Your task to perform on an android device: Open calendar and show me the fourth week of next month Image 0: 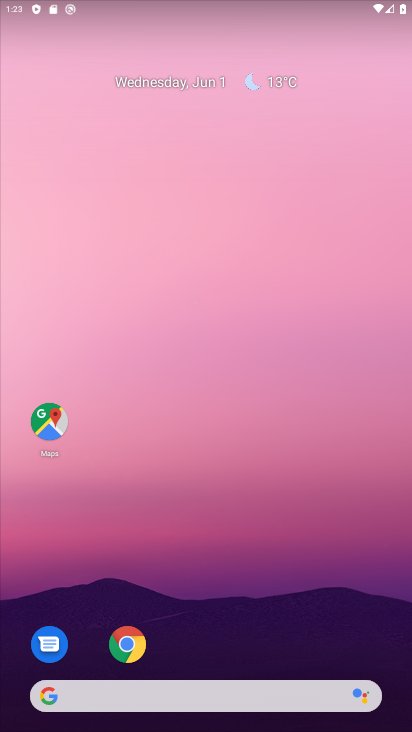
Step 0: drag from (219, 662) to (266, 321)
Your task to perform on an android device: Open calendar and show me the fourth week of next month Image 1: 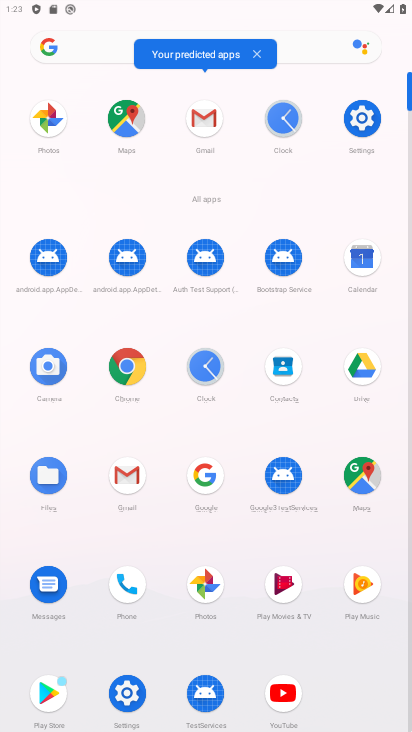
Step 1: click (356, 267)
Your task to perform on an android device: Open calendar and show me the fourth week of next month Image 2: 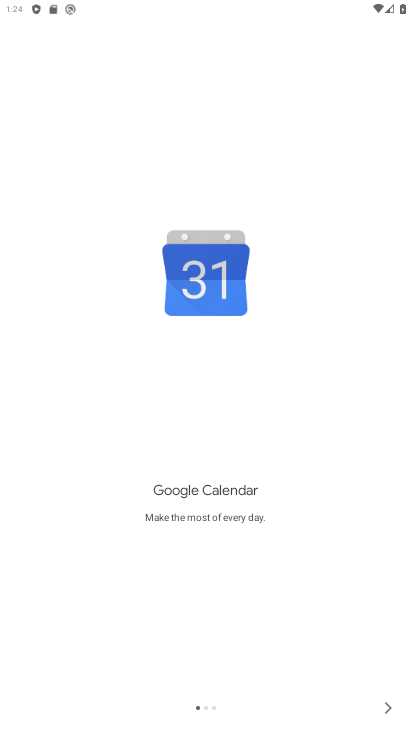
Step 2: click (383, 704)
Your task to perform on an android device: Open calendar and show me the fourth week of next month Image 3: 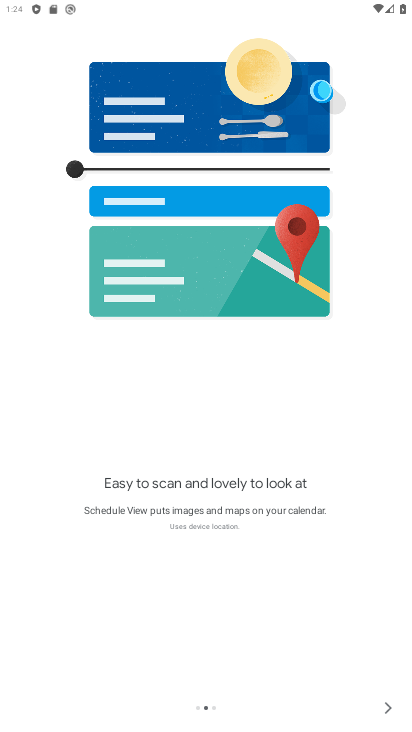
Step 3: click (380, 706)
Your task to perform on an android device: Open calendar and show me the fourth week of next month Image 4: 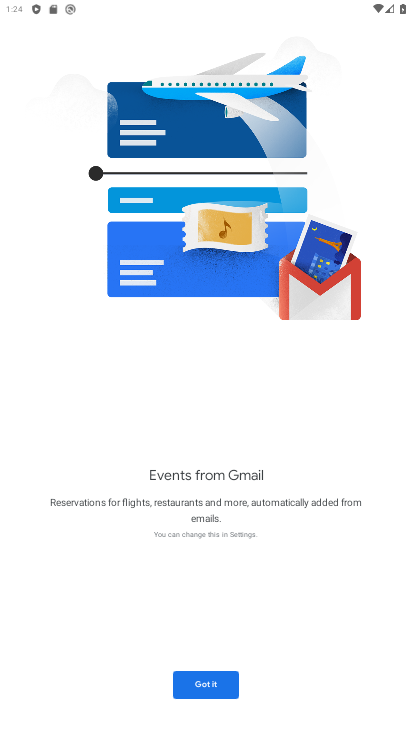
Step 4: click (198, 684)
Your task to perform on an android device: Open calendar and show me the fourth week of next month Image 5: 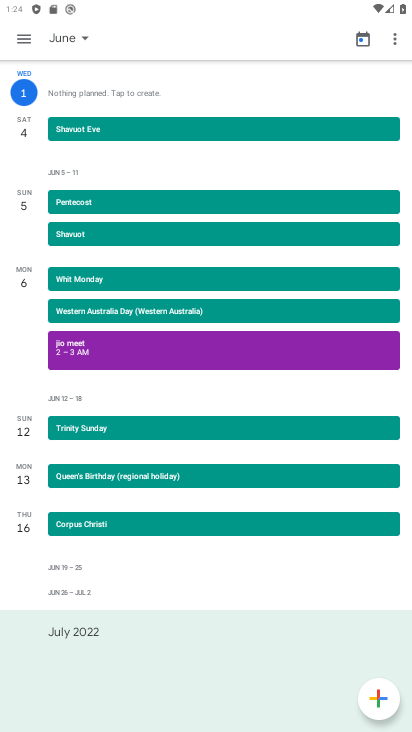
Step 5: click (94, 93)
Your task to perform on an android device: Open calendar and show me the fourth week of next month Image 6: 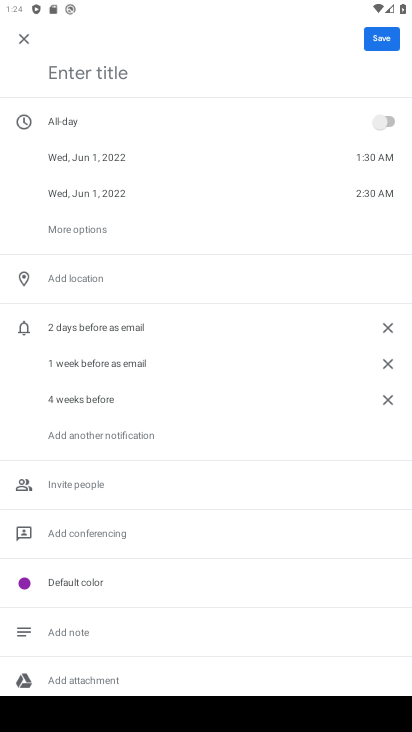
Step 6: click (31, 42)
Your task to perform on an android device: Open calendar and show me the fourth week of next month Image 7: 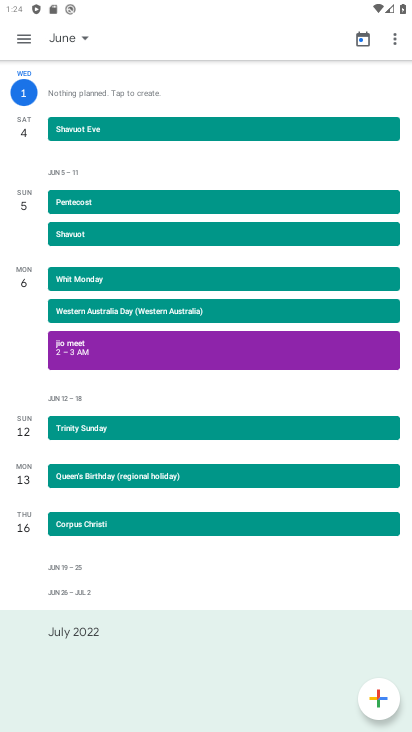
Step 7: drag from (237, 118) to (258, 550)
Your task to perform on an android device: Open calendar and show me the fourth week of next month Image 8: 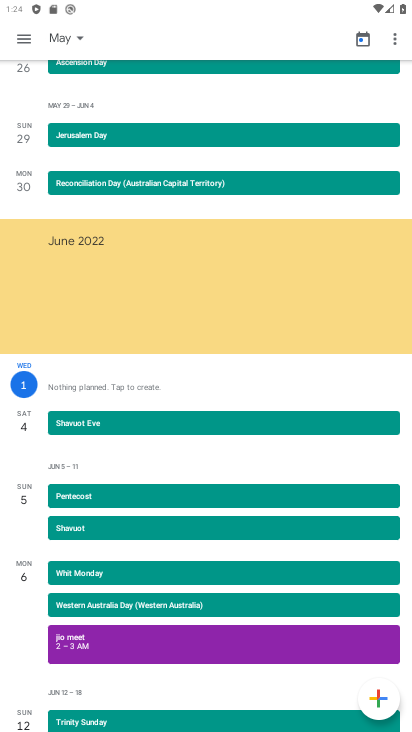
Step 8: drag from (118, 101) to (183, 525)
Your task to perform on an android device: Open calendar and show me the fourth week of next month Image 9: 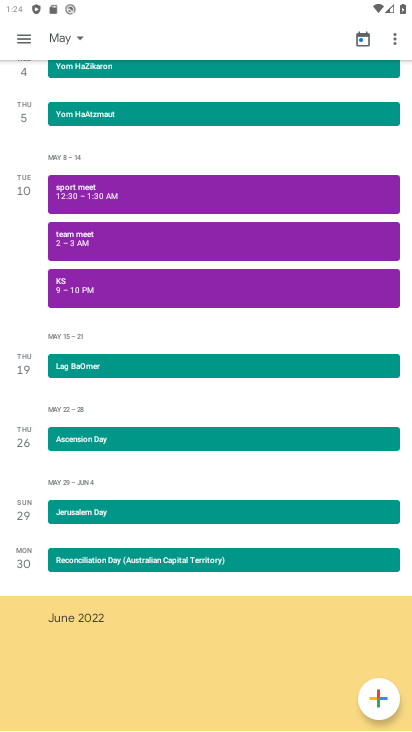
Step 9: drag from (167, 150) to (181, 505)
Your task to perform on an android device: Open calendar and show me the fourth week of next month Image 10: 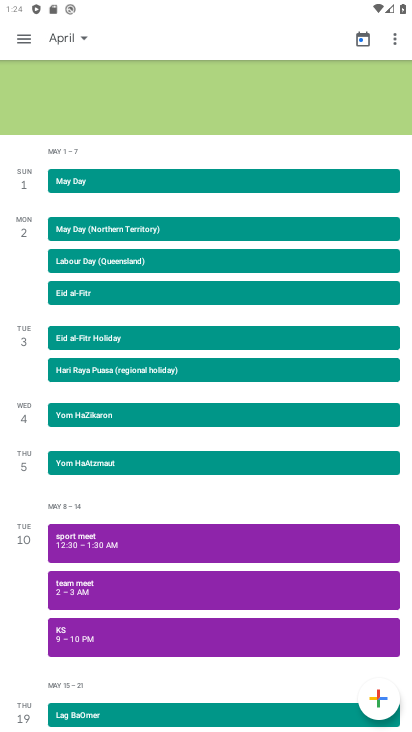
Step 10: click (60, 40)
Your task to perform on an android device: Open calendar and show me the fourth week of next month Image 11: 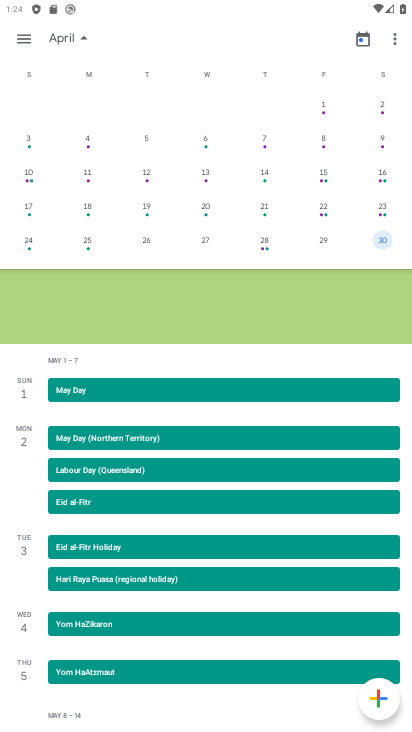
Step 11: drag from (311, 209) to (1, 168)
Your task to perform on an android device: Open calendar and show me the fourth week of next month Image 12: 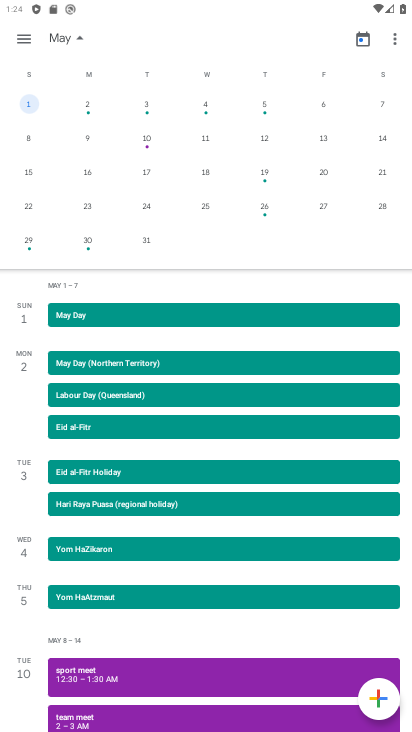
Step 12: drag from (311, 199) to (4, 181)
Your task to perform on an android device: Open calendar and show me the fourth week of next month Image 13: 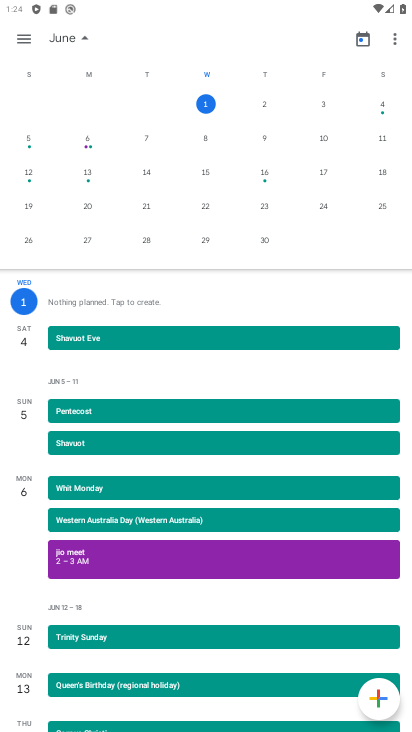
Step 13: drag from (345, 216) to (4, 196)
Your task to perform on an android device: Open calendar and show me the fourth week of next month Image 14: 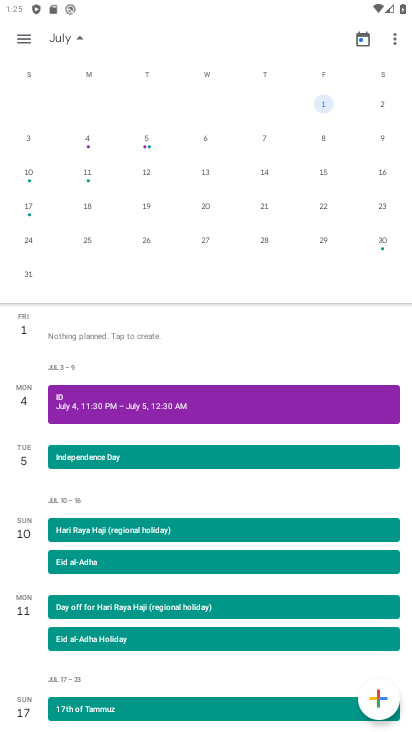
Step 14: click (25, 210)
Your task to perform on an android device: Open calendar and show me the fourth week of next month Image 15: 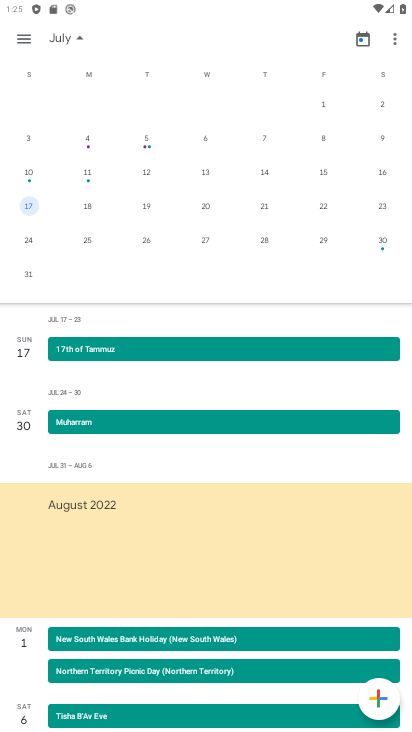
Step 15: task complete